Your task to perform on an android device: When is my next meeting? Image 0: 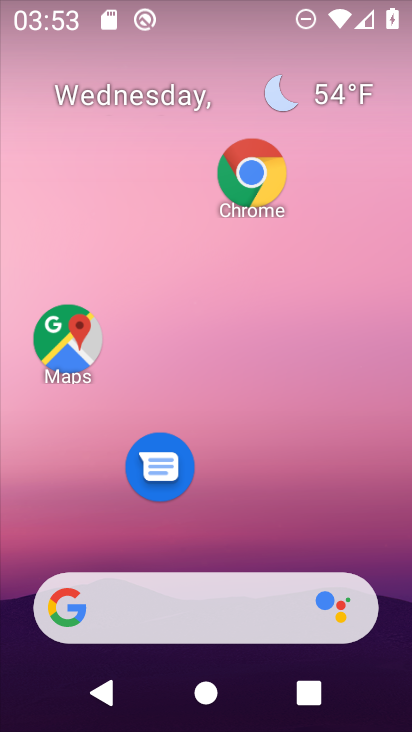
Step 0: drag from (221, 541) to (270, 98)
Your task to perform on an android device: When is my next meeting? Image 1: 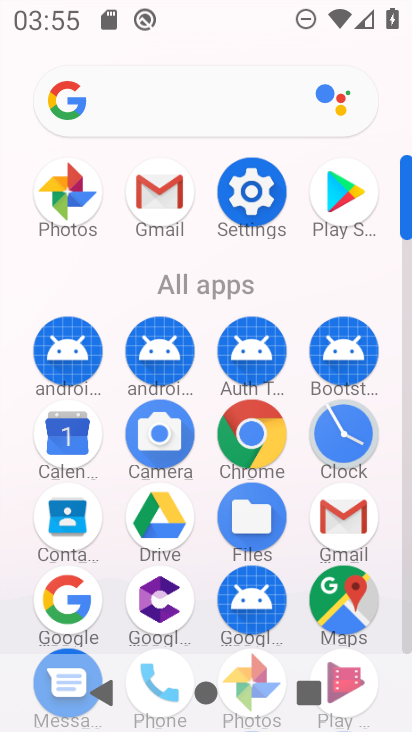
Step 1: click (75, 433)
Your task to perform on an android device: When is my next meeting? Image 2: 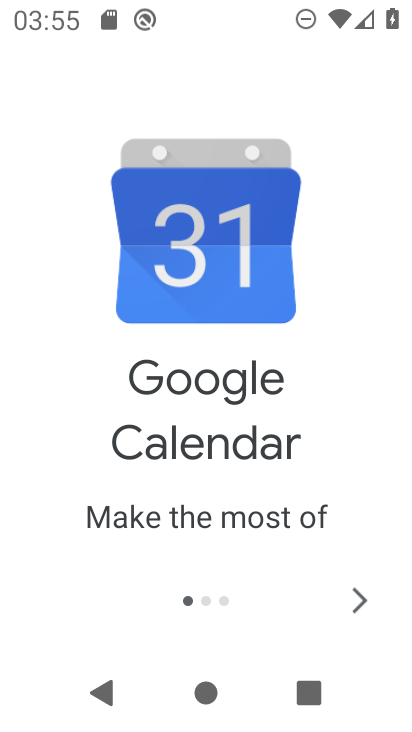
Step 2: click (364, 609)
Your task to perform on an android device: When is my next meeting? Image 3: 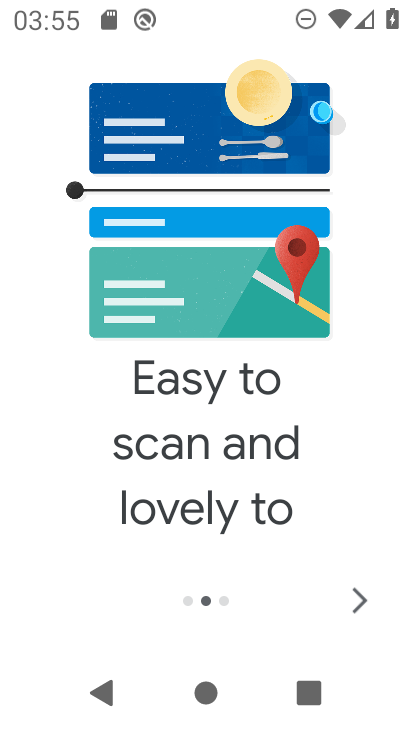
Step 3: click (350, 591)
Your task to perform on an android device: When is my next meeting? Image 4: 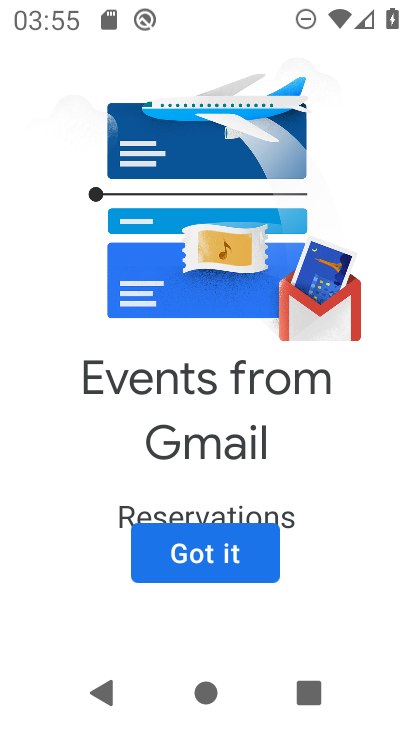
Step 4: click (172, 556)
Your task to perform on an android device: When is my next meeting? Image 5: 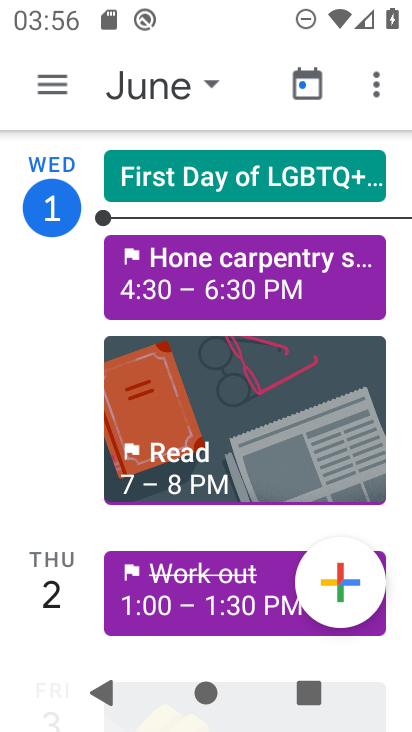
Step 5: drag from (172, 610) to (292, 41)
Your task to perform on an android device: When is my next meeting? Image 6: 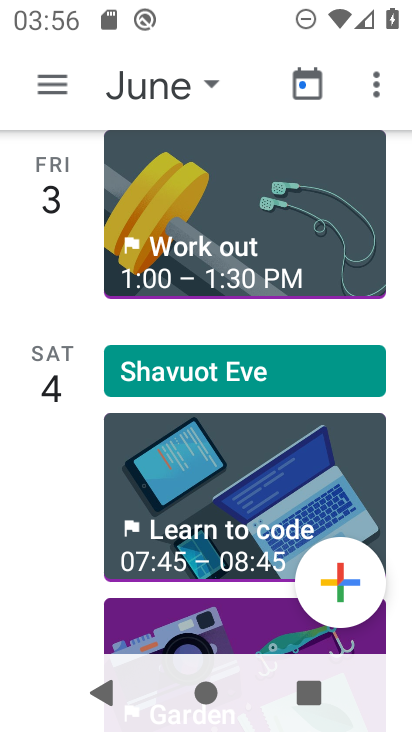
Step 6: drag from (227, 568) to (301, 209)
Your task to perform on an android device: When is my next meeting? Image 7: 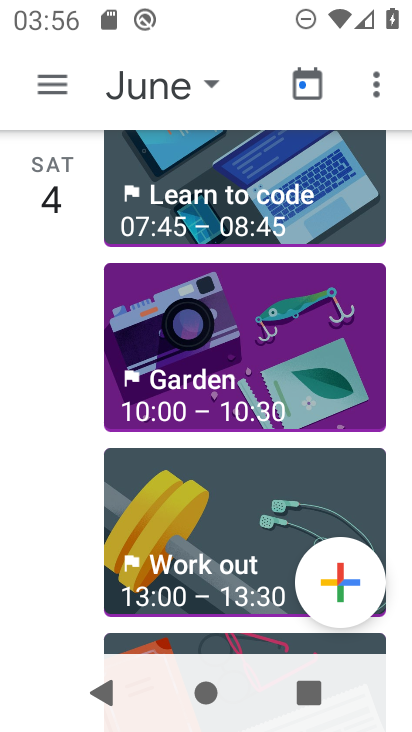
Step 7: drag from (215, 580) to (291, 125)
Your task to perform on an android device: When is my next meeting? Image 8: 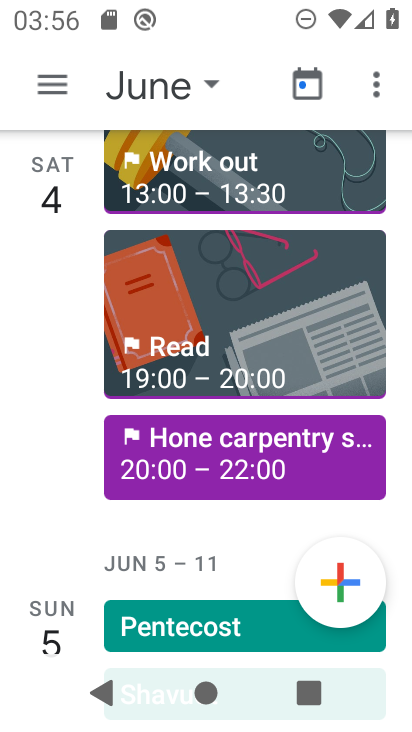
Step 8: drag from (198, 601) to (308, 59)
Your task to perform on an android device: When is my next meeting? Image 9: 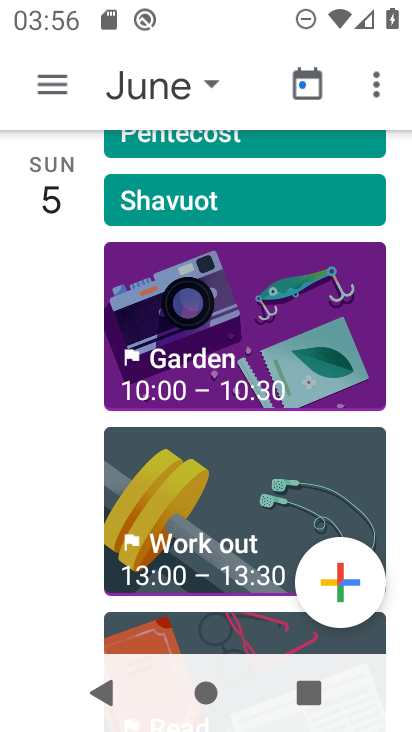
Step 9: drag from (192, 597) to (282, 209)
Your task to perform on an android device: When is my next meeting? Image 10: 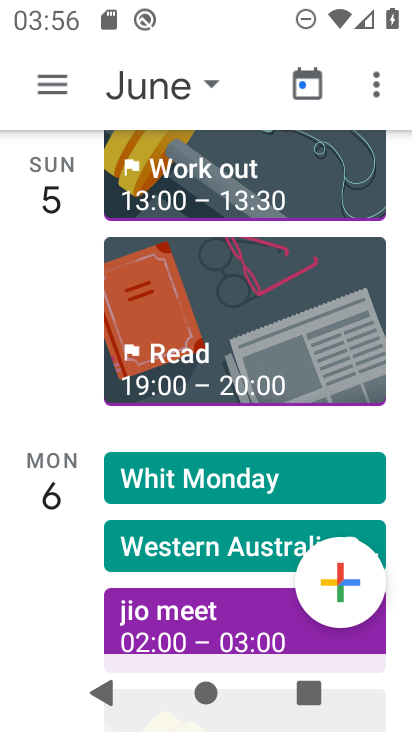
Step 10: click (180, 609)
Your task to perform on an android device: When is my next meeting? Image 11: 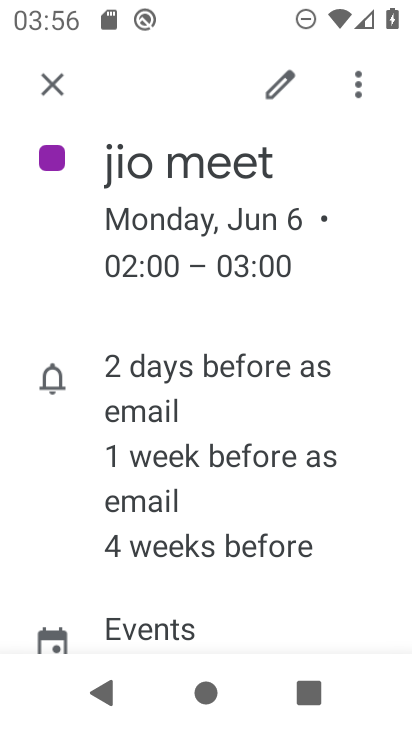
Step 11: task complete